Your task to perform on an android device: Go to display settings Image 0: 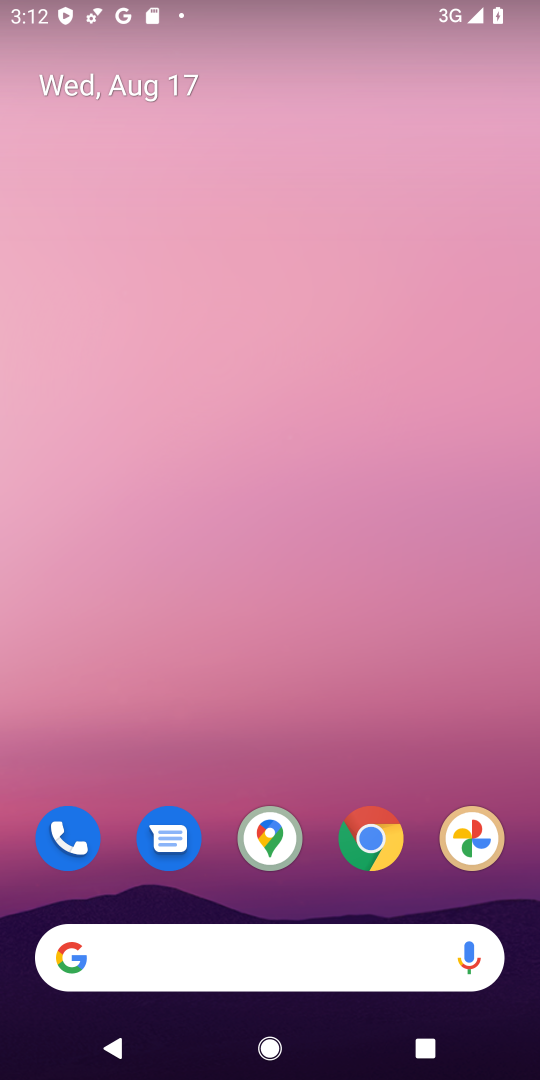
Step 0: drag from (239, 865) to (355, 106)
Your task to perform on an android device: Go to display settings Image 1: 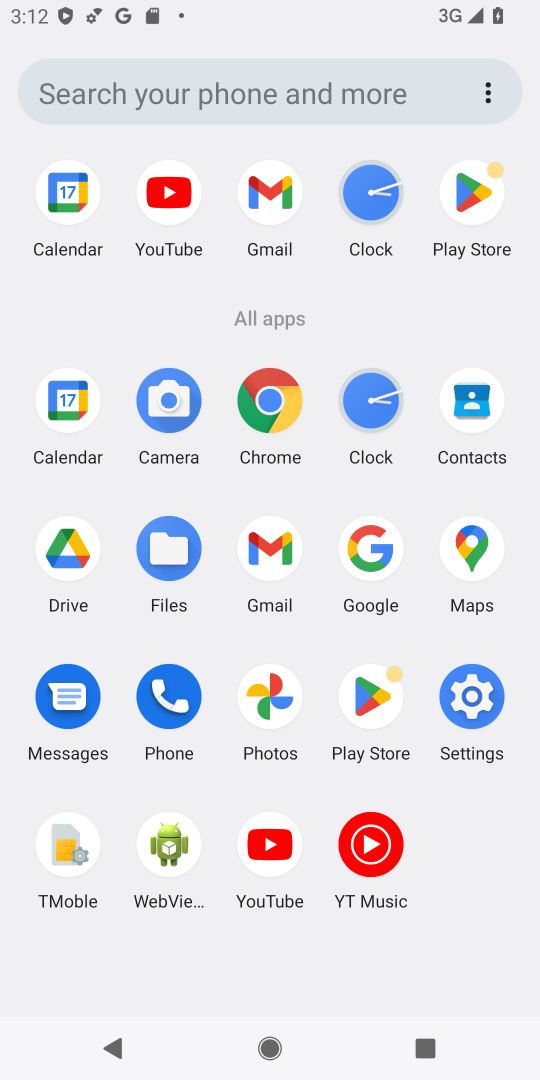
Step 1: click (465, 684)
Your task to perform on an android device: Go to display settings Image 2: 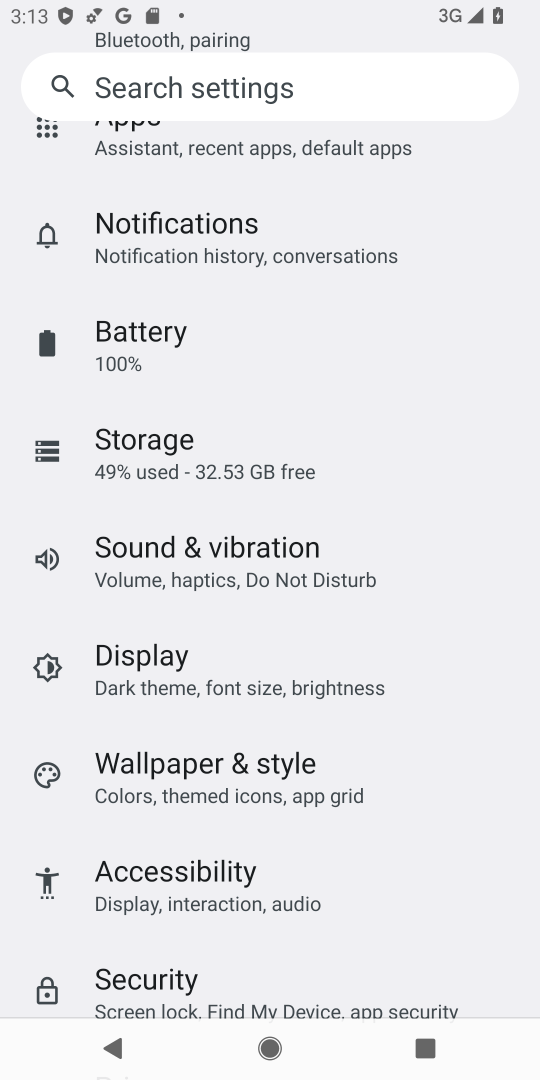
Step 2: click (223, 661)
Your task to perform on an android device: Go to display settings Image 3: 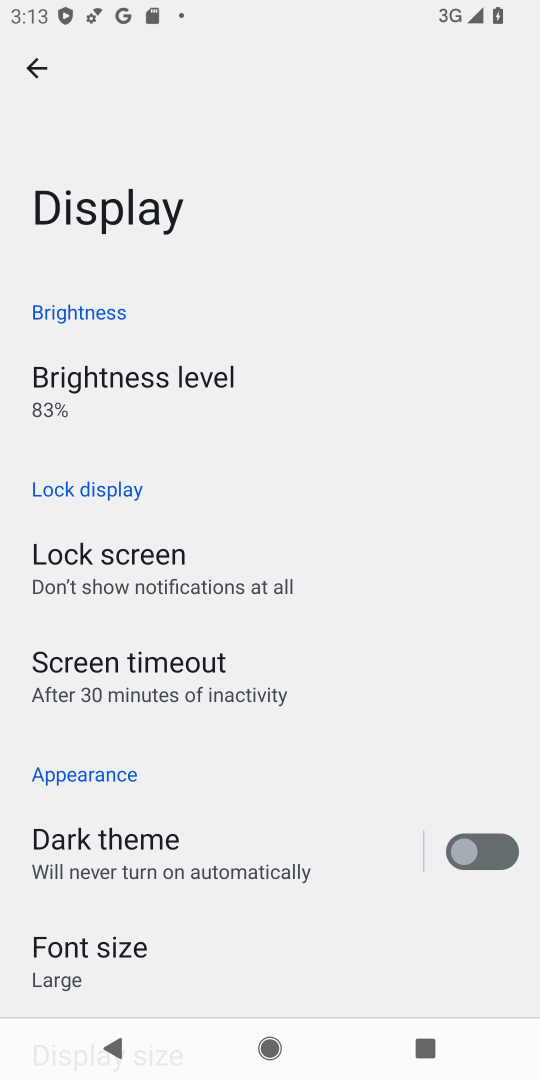
Step 3: task complete